Your task to perform on an android device: delete browsing data in the chrome app Image 0: 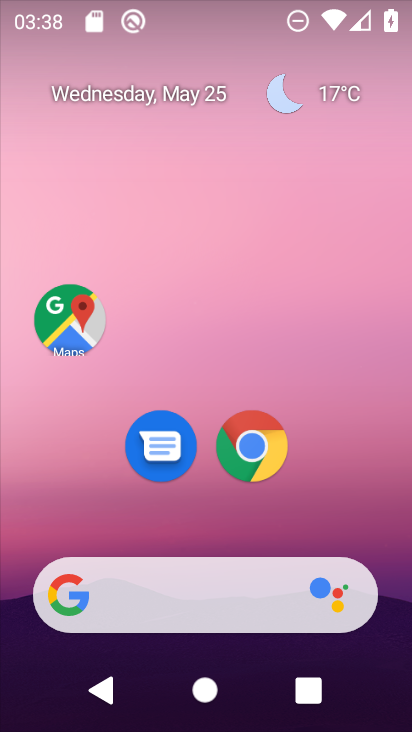
Step 0: click (251, 461)
Your task to perform on an android device: delete browsing data in the chrome app Image 1: 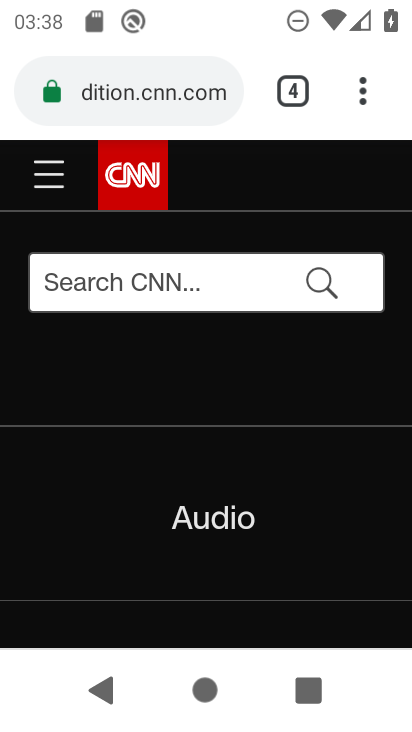
Step 1: drag from (365, 76) to (145, 391)
Your task to perform on an android device: delete browsing data in the chrome app Image 2: 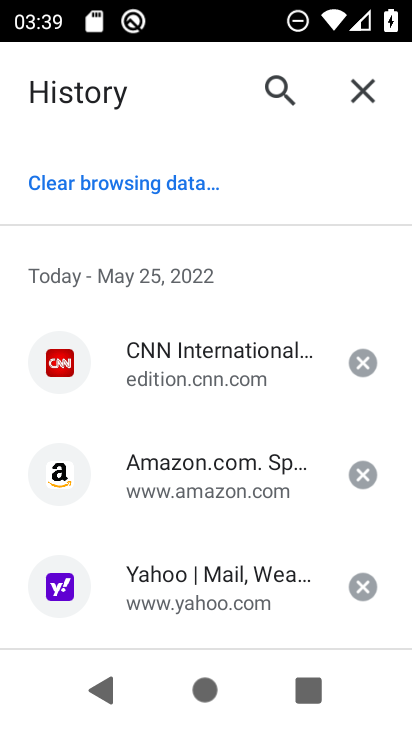
Step 2: click (151, 175)
Your task to perform on an android device: delete browsing data in the chrome app Image 3: 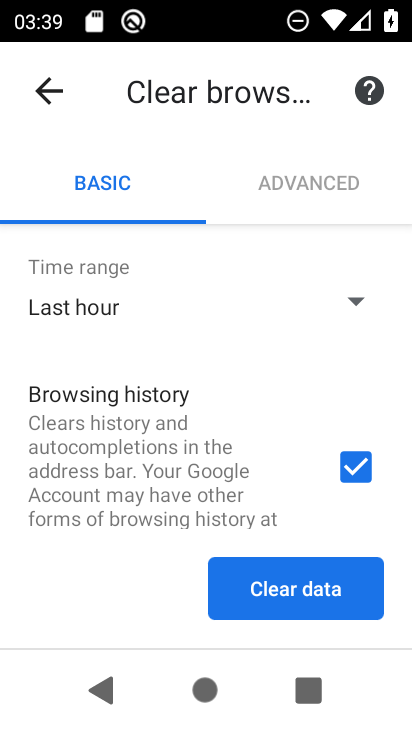
Step 3: click (299, 580)
Your task to perform on an android device: delete browsing data in the chrome app Image 4: 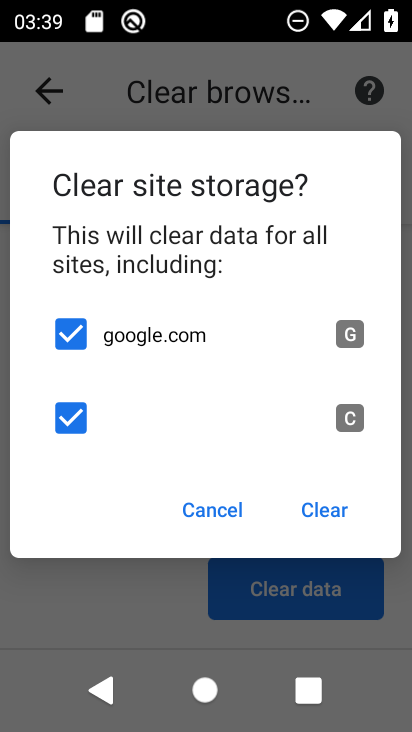
Step 4: click (330, 503)
Your task to perform on an android device: delete browsing data in the chrome app Image 5: 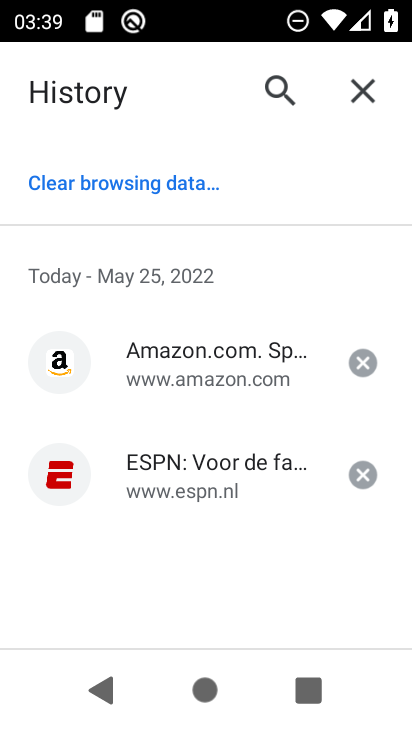
Step 5: task complete